Your task to perform on an android device: When is my next appointment? Image 0: 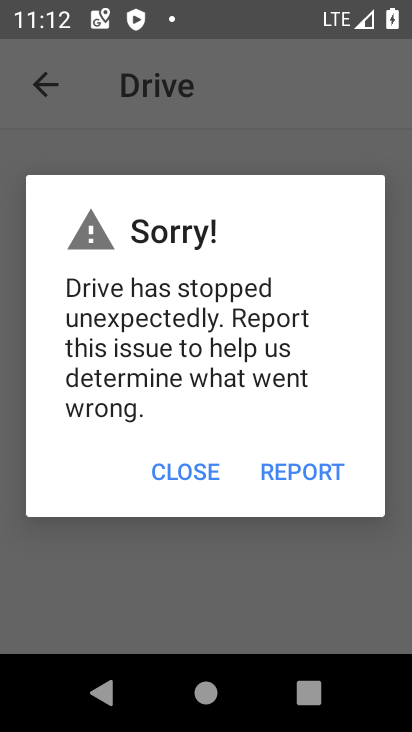
Step 0: press home button
Your task to perform on an android device: When is my next appointment? Image 1: 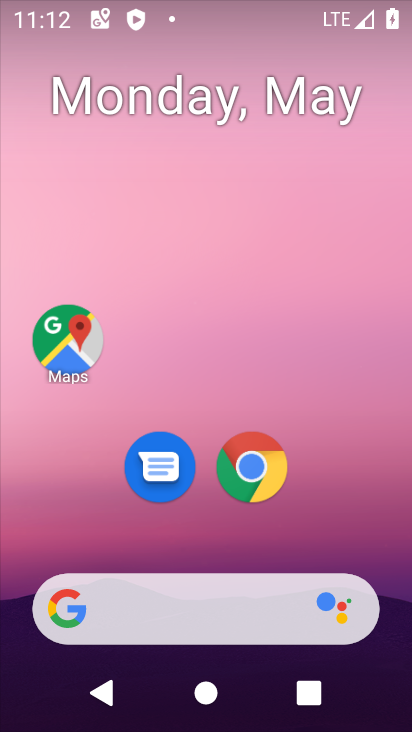
Step 1: drag from (395, 708) to (334, 67)
Your task to perform on an android device: When is my next appointment? Image 2: 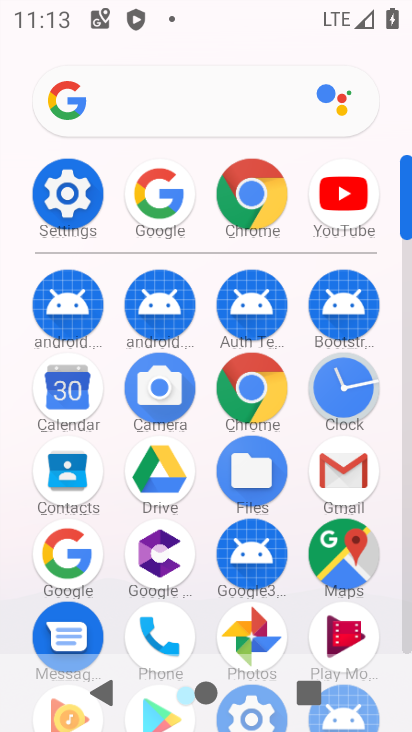
Step 2: click (71, 396)
Your task to perform on an android device: When is my next appointment? Image 3: 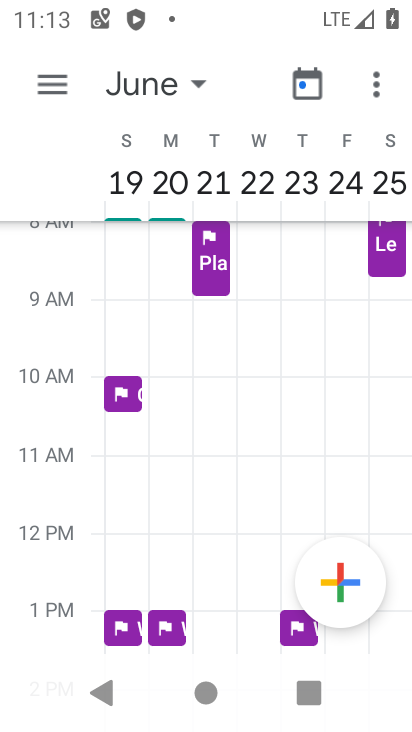
Step 3: click (48, 74)
Your task to perform on an android device: When is my next appointment? Image 4: 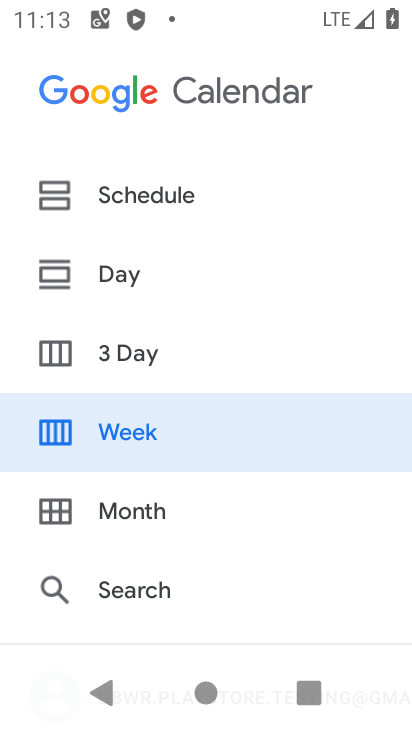
Step 4: drag from (247, 600) to (213, 312)
Your task to perform on an android device: When is my next appointment? Image 5: 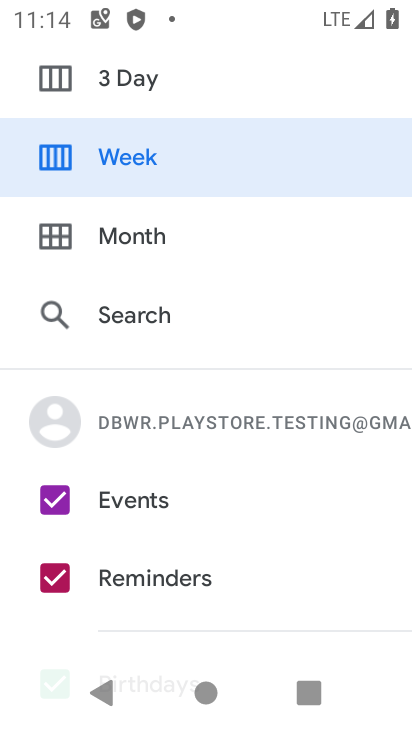
Step 5: drag from (250, 546) to (264, 234)
Your task to perform on an android device: When is my next appointment? Image 6: 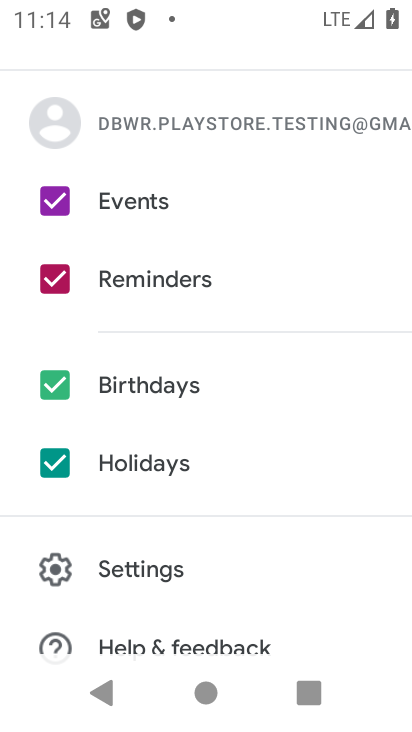
Step 6: drag from (345, 220) to (368, 572)
Your task to perform on an android device: When is my next appointment? Image 7: 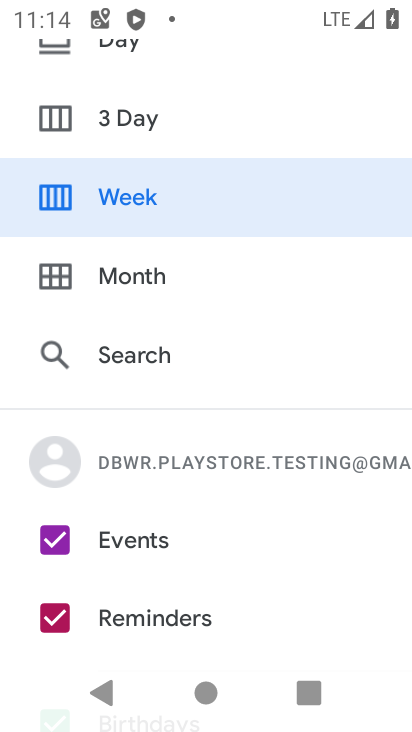
Step 7: drag from (280, 281) to (297, 498)
Your task to perform on an android device: When is my next appointment? Image 8: 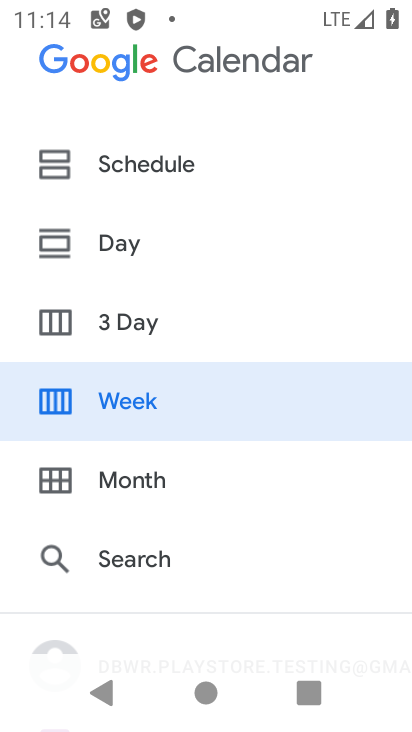
Step 8: click (147, 163)
Your task to perform on an android device: When is my next appointment? Image 9: 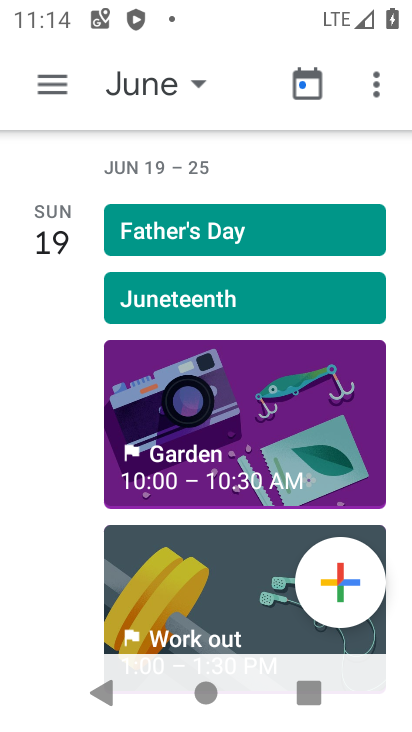
Step 9: click (184, 84)
Your task to perform on an android device: When is my next appointment? Image 10: 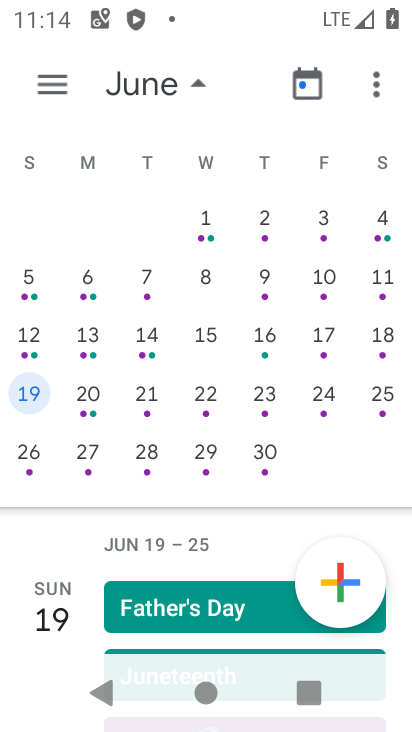
Step 10: drag from (40, 224) to (355, 293)
Your task to perform on an android device: When is my next appointment? Image 11: 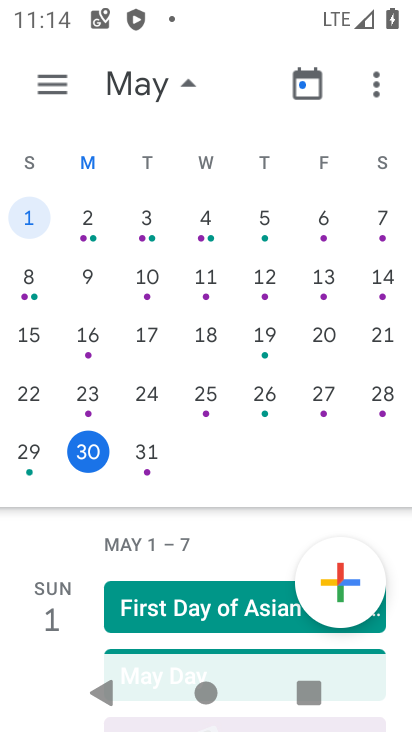
Step 11: click (54, 76)
Your task to perform on an android device: When is my next appointment? Image 12: 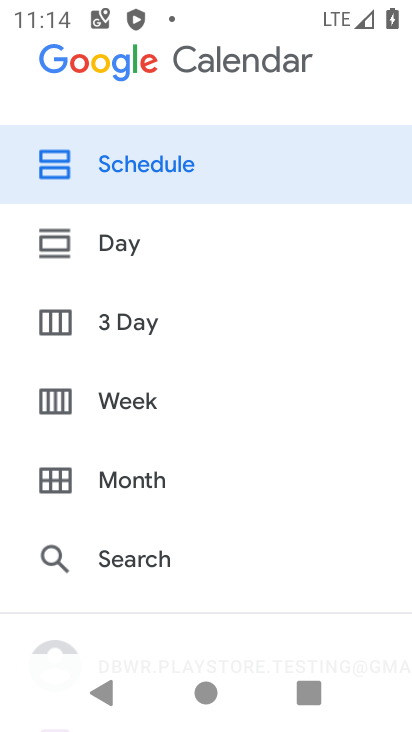
Step 12: click (111, 164)
Your task to perform on an android device: When is my next appointment? Image 13: 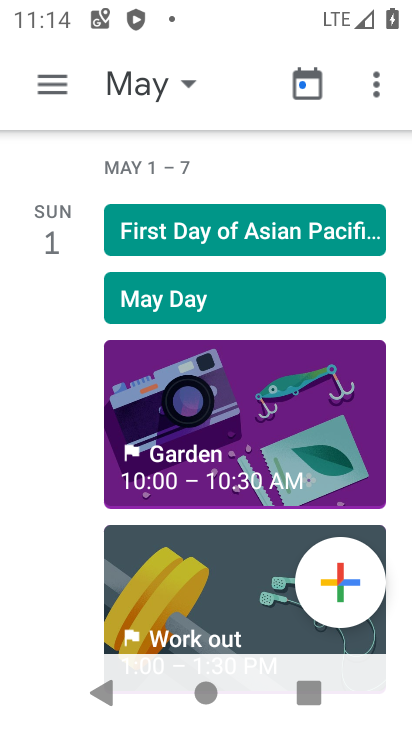
Step 13: task complete